Your task to perform on an android device: set the stopwatch Image 0: 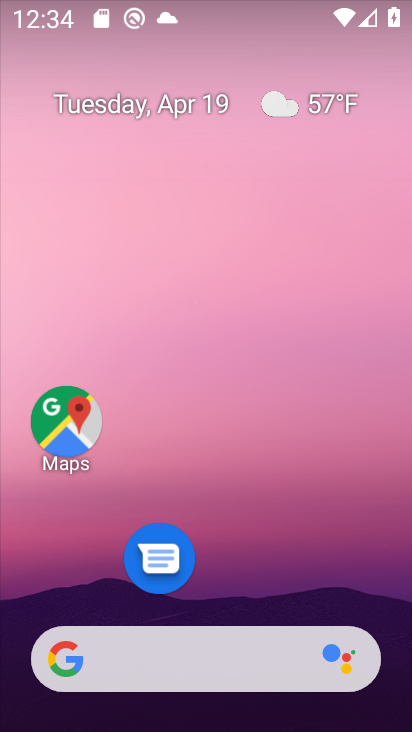
Step 0: drag from (237, 537) to (249, 124)
Your task to perform on an android device: set the stopwatch Image 1: 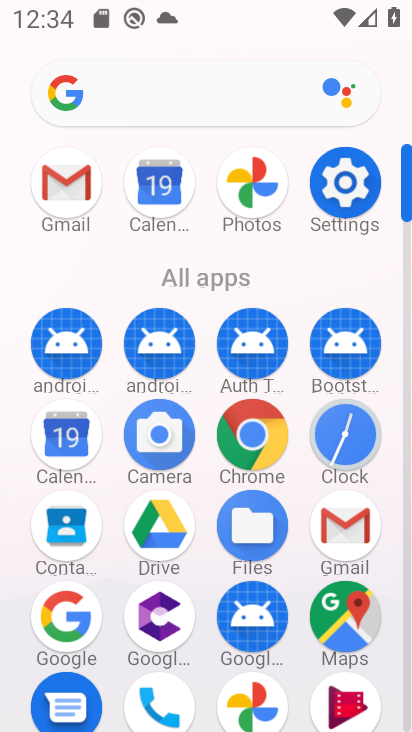
Step 1: click (338, 433)
Your task to perform on an android device: set the stopwatch Image 2: 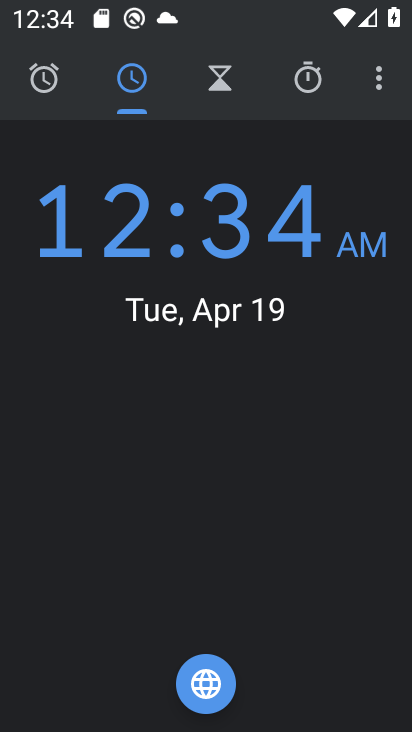
Step 2: click (311, 65)
Your task to perform on an android device: set the stopwatch Image 3: 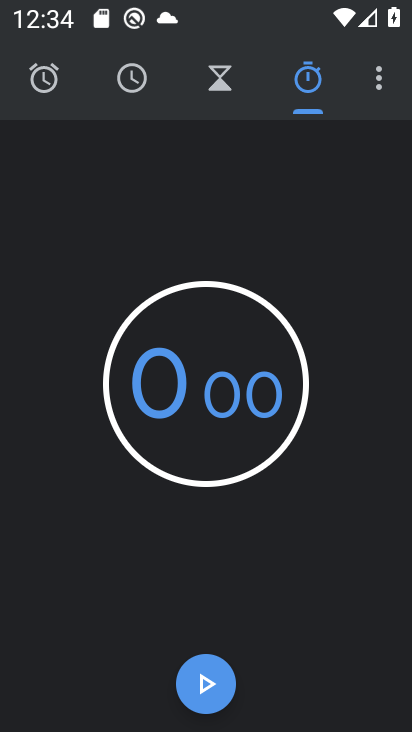
Step 3: click (212, 688)
Your task to perform on an android device: set the stopwatch Image 4: 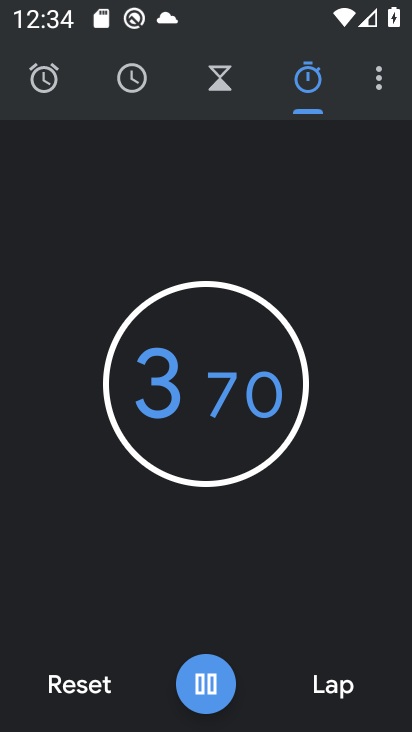
Step 4: click (328, 690)
Your task to perform on an android device: set the stopwatch Image 5: 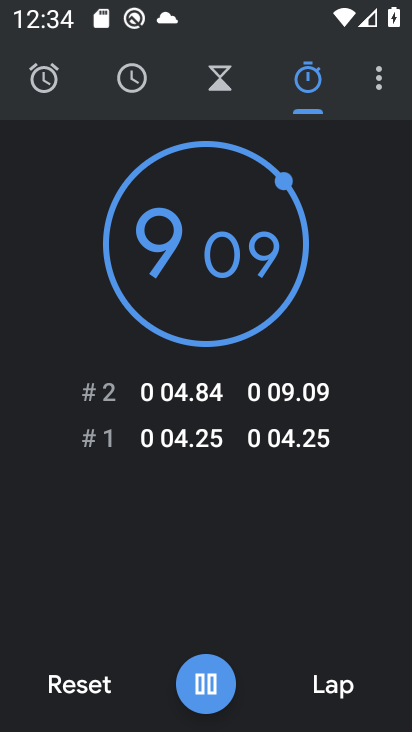
Step 5: click (328, 690)
Your task to perform on an android device: set the stopwatch Image 6: 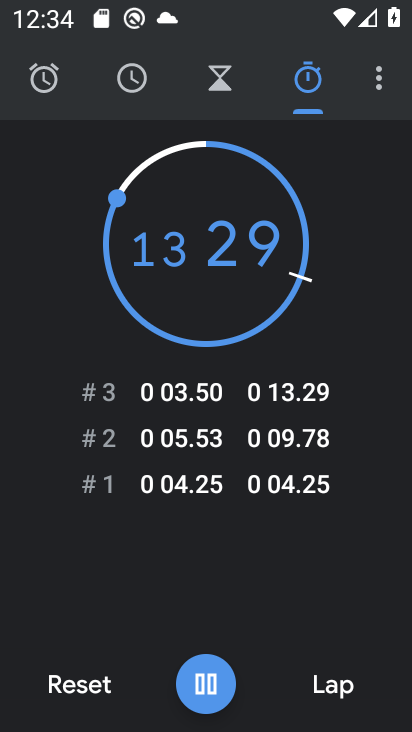
Step 6: click (328, 690)
Your task to perform on an android device: set the stopwatch Image 7: 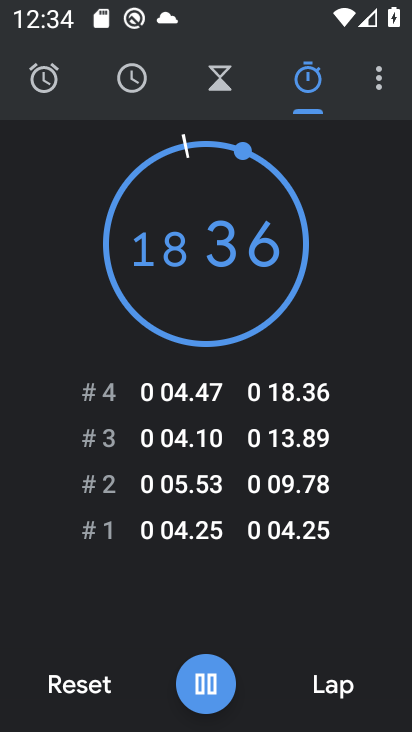
Step 7: click (328, 690)
Your task to perform on an android device: set the stopwatch Image 8: 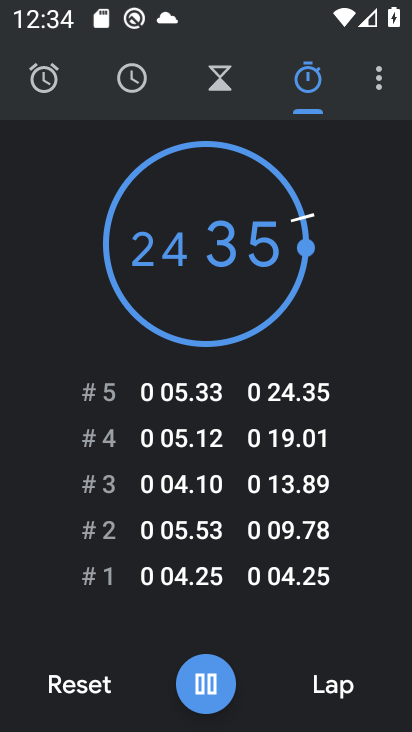
Step 8: click (328, 690)
Your task to perform on an android device: set the stopwatch Image 9: 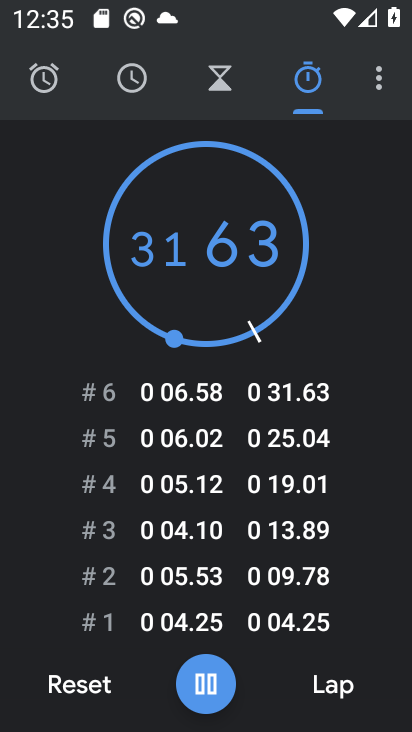
Step 9: click (328, 690)
Your task to perform on an android device: set the stopwatch Image 10: 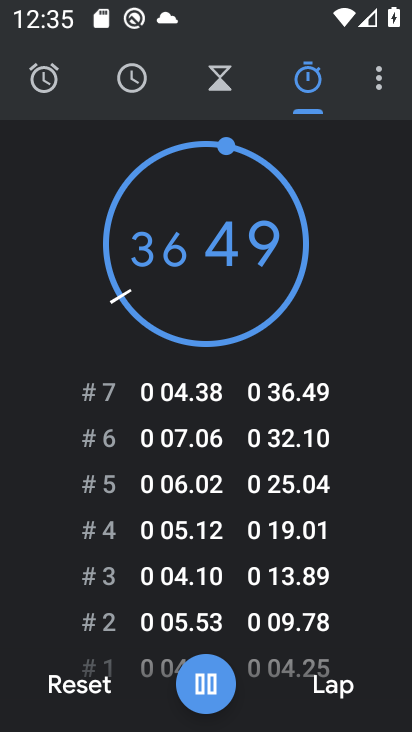
Step 10: click (96, 684)
Your task to perform on an android device: set the stopwatch Image 11: 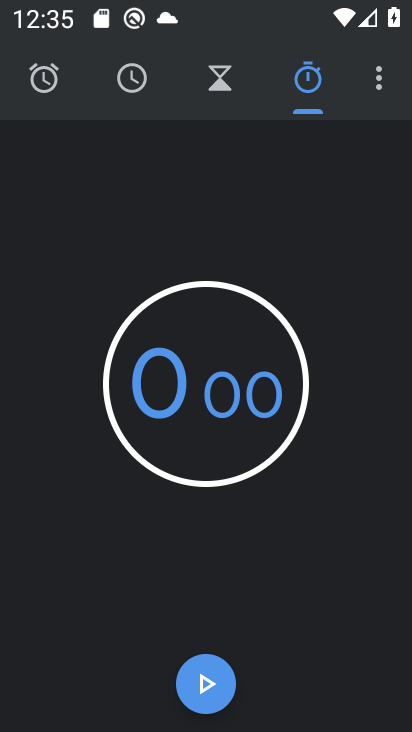
Step 11: task complete